Your task to perform on an android device: turn off data saver in the chrome app Image 0: 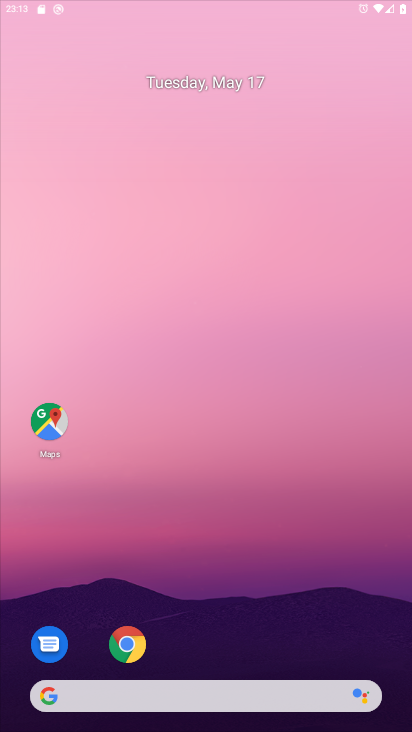
Step 0: press home button
Your task to perform on an android device: turn off data saver in the chrome app Image 1: 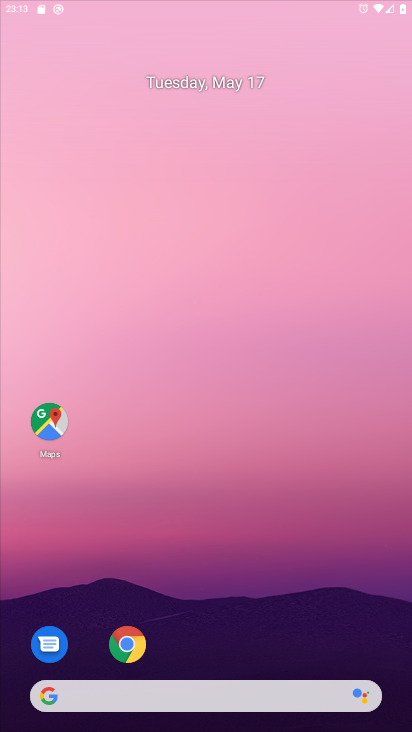
Step 1: drag from (217, 647) to (289, 55)
Your task to perform on an android device: turn off data saver in the chrome app Image 2: 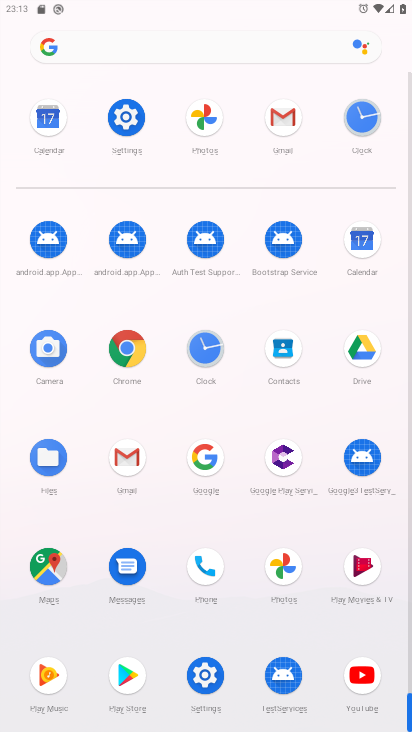
Step 2: click (278, 114)
Your task to perform on an android device: turn off data saver in the chrome app Image 3: 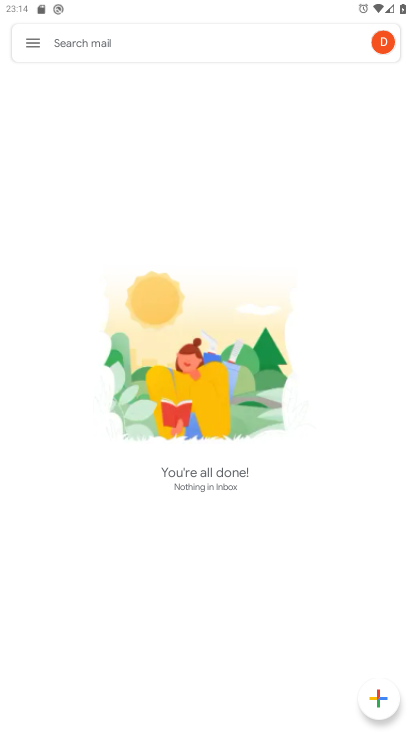
Step 3: press home button
Your task to perform on an android device: turn off data saver in the chrome app Image 4: 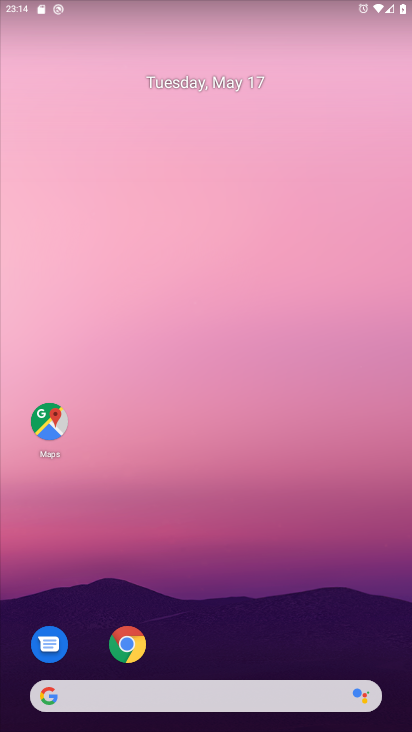
Step 4: click (119, 638)
Your task to perform on an android device: turn off data saver in the chrome app Image 5: 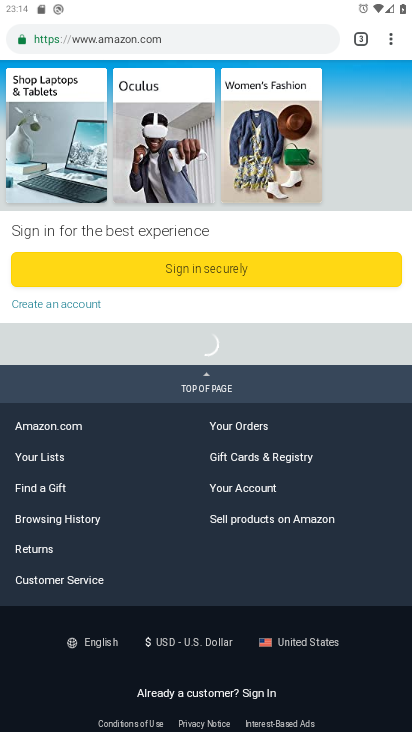
Step 5: click (356, 35)
Your task to perform on an android device: turn off data saver in the chrome app Image 6: 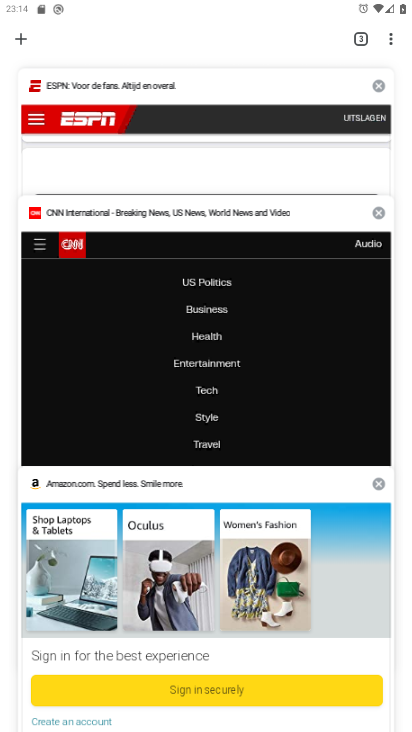
Step 6: click (203, 576)
Your task to perform on an android device: turn off data saver in the chrome app Image 7: 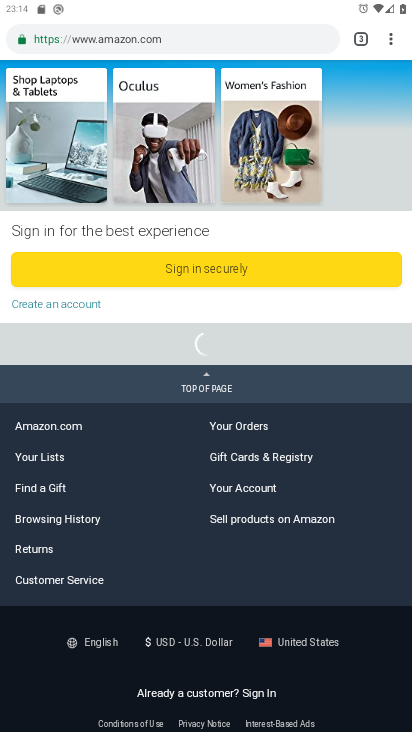
Step 7: click (390, 35)
Your task to perform on an android device: turn off data saver in the chrome app Image 8: 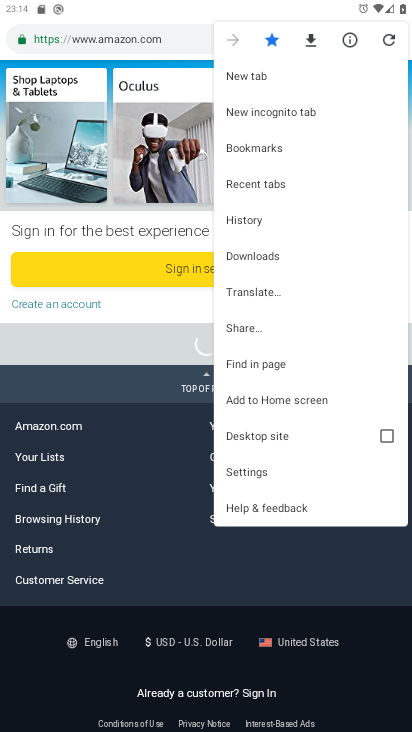
Step 8: click (273, 473)
Your task to perform on an android device: turn off data saver in the chrome app Image 9: 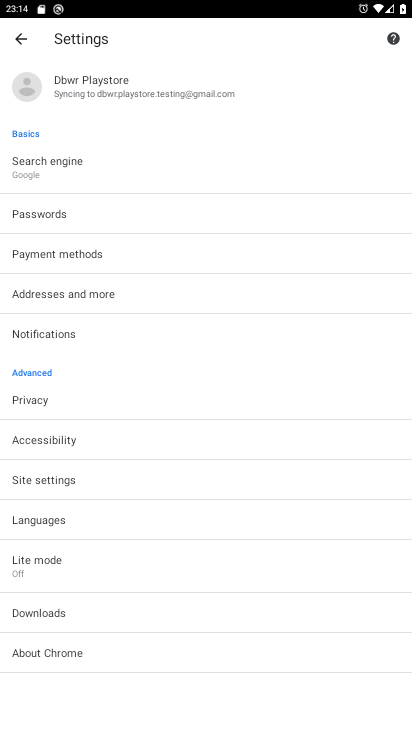
Step 9: click (78, 560)
Your task to perform on an android device: turn off data saver in the chrome app Image 10: 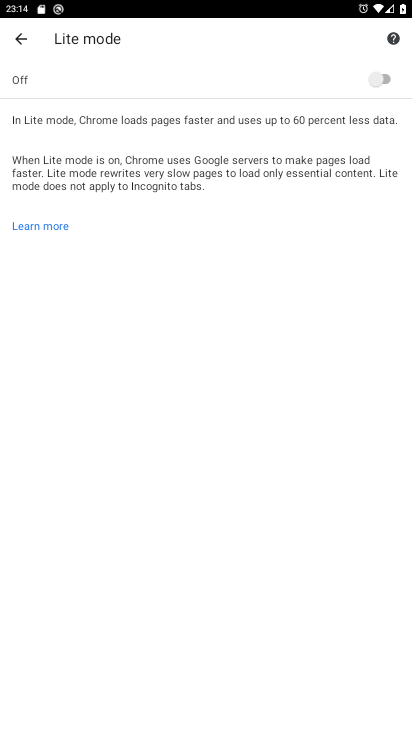
Step 10: task complete